Your task to perform on an android device: open device folders in google photos Image 0: 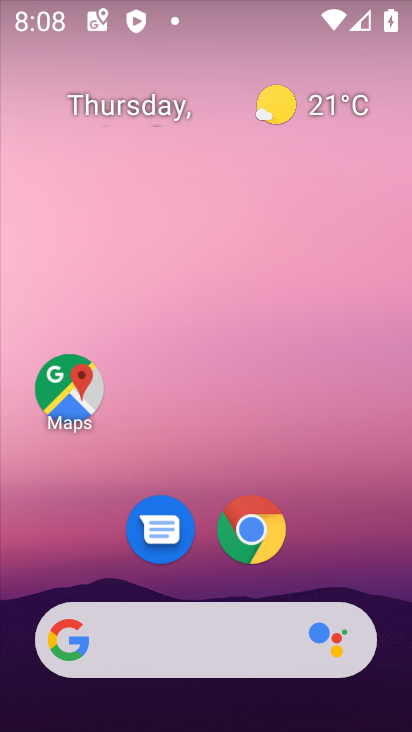
Step 0: drag from (248, 619) to (293, 22)
Your task to perform on an android device: open device folders in google photos Image 1: 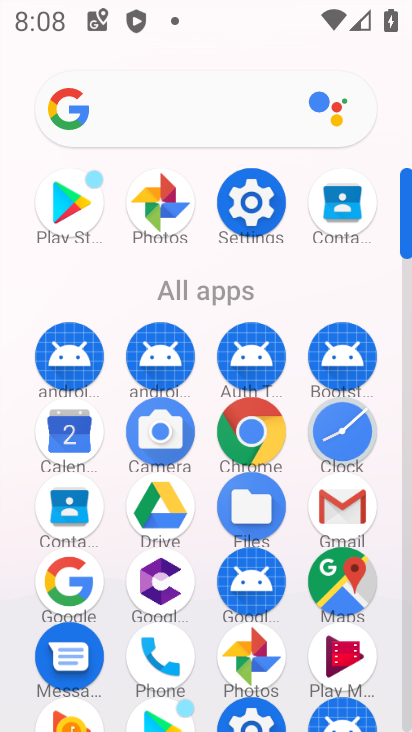
Step 1: click (266, 642)
Your task to perform on an android device: open device folders in google photos Image 2: 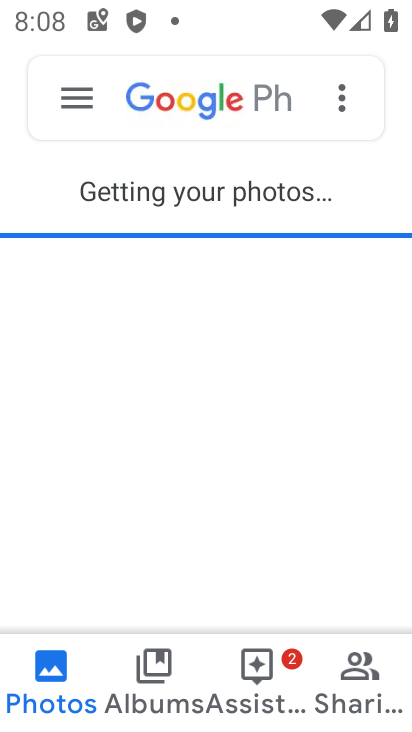
Step 2: click (85, 102)
Your task to perform on an android device: open device folders in google photos Image 3: 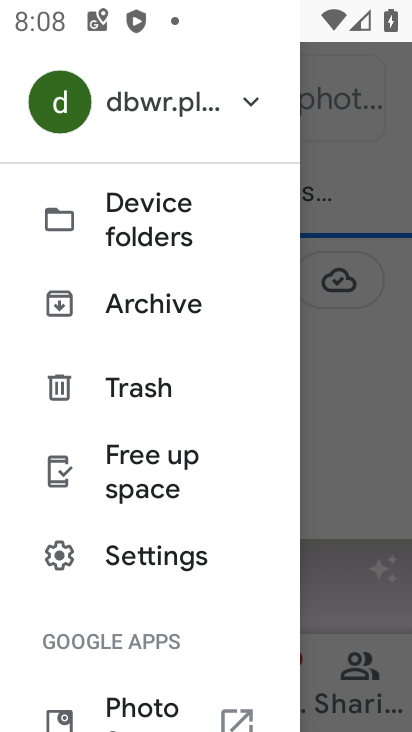
Step 3: click (140, 248)
Your task to perform on an android device: open device folders in google photos Image 4: 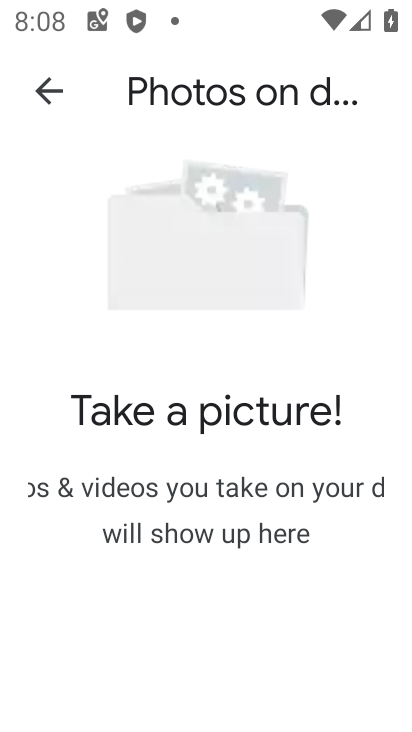
Step 4: task complete